Your task to perform on an android device: Open Yahoo.com Image 0: 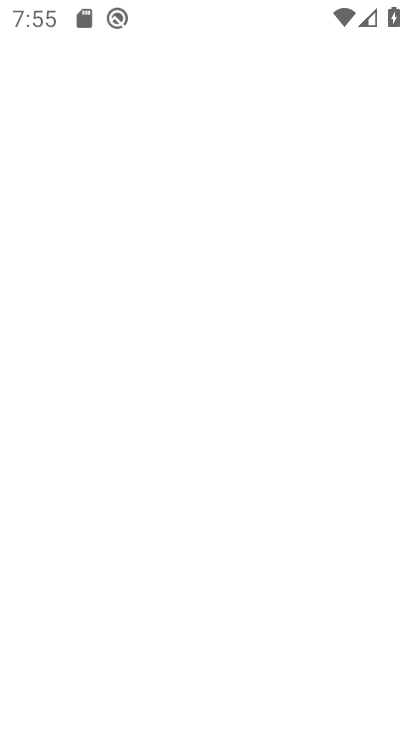
Step 0: drag from (343, 569) to (348, 533)
Your task to perform on an android device: Open Yahoo.com Image 1: 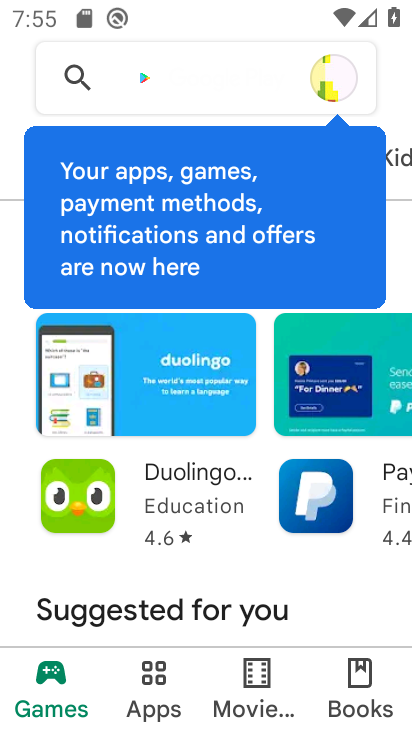
Step 1: press home button
Your task to perform on an android device: Open Yahoo.com Image 2: 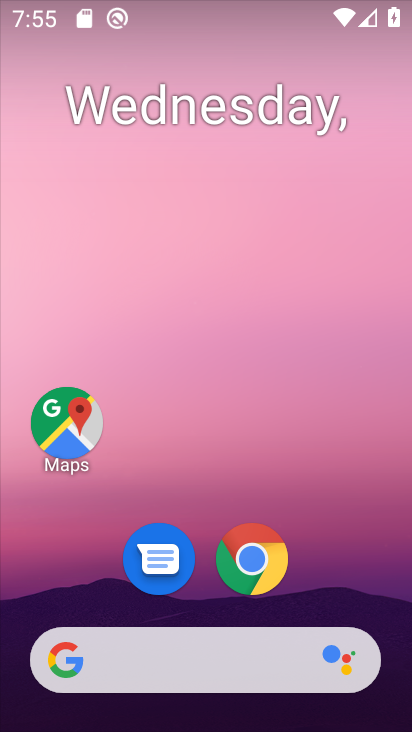
Step 2: click (266, 570)
Your task to perform on an android device: Open Yahoo.com Image 3: 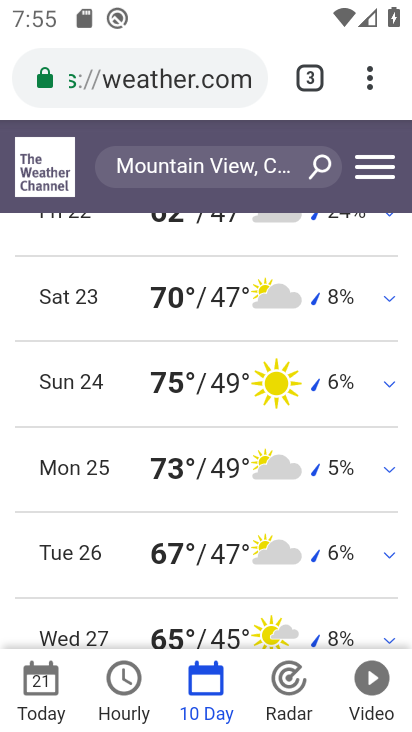
Step 3: click (222, 81)
Your task to perform on an android device: Open Yahoo.com Image 4: 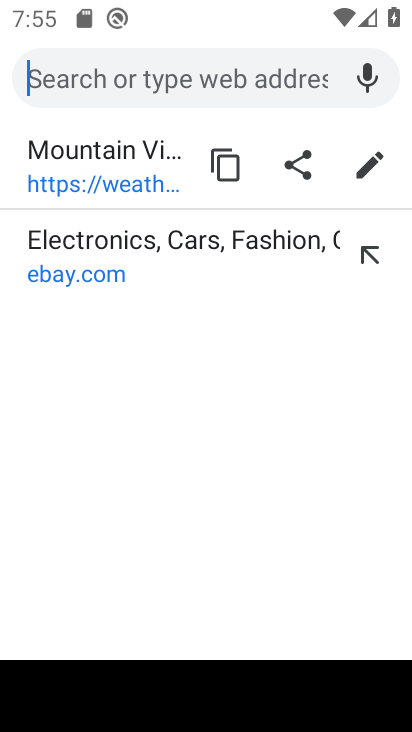
Step 4: type "yahoo.com"
Your task to perform on an android device: Open Yahoo.com Image 5: 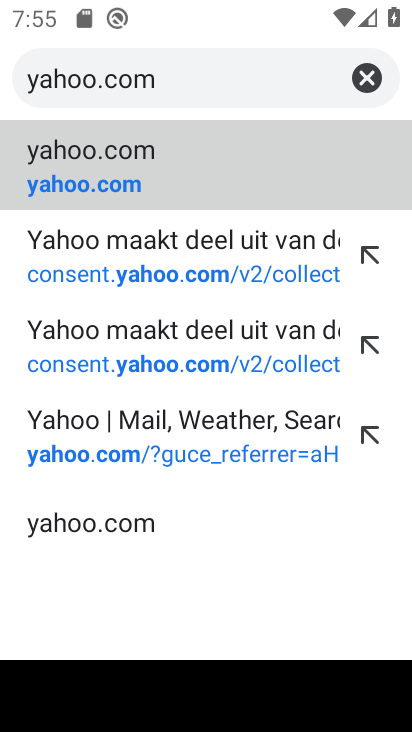
Step 5: click (64, 144)
Your task to perform on an android device: Open Yahoo.com Image 6: 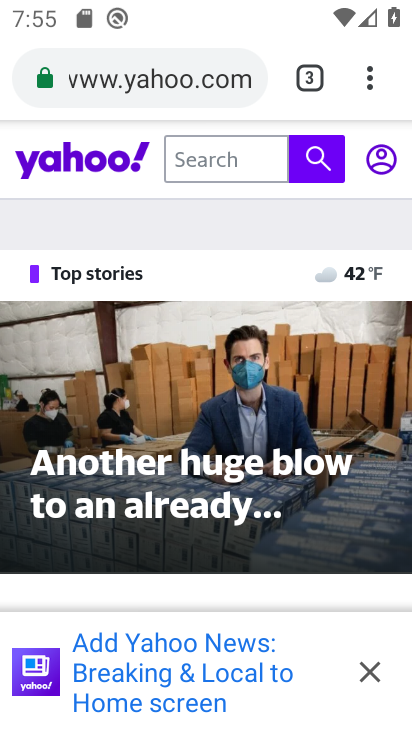
Step 6: task complete